Your task to perform on an android device: check battery use Image 0: 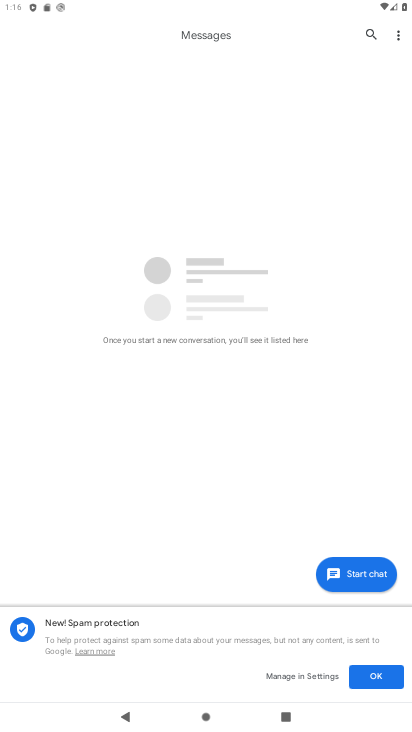
Step 0: press home button
Your task to perform on an android device: check battery use Image 1: 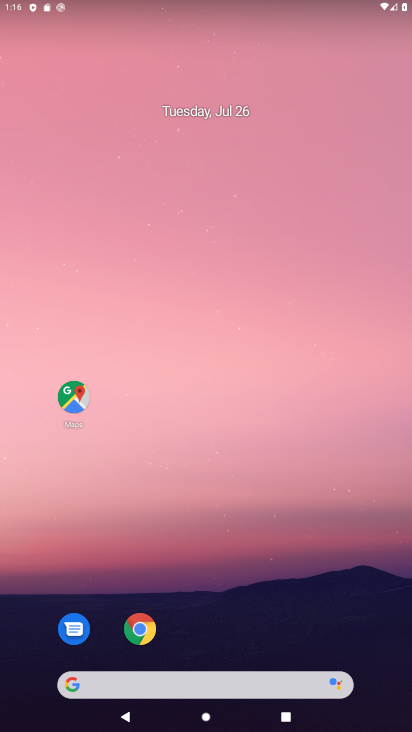
Step 1: drag from (214, 546) to (273, 61)
Your task to perform on an android device: check battery use Image 2: 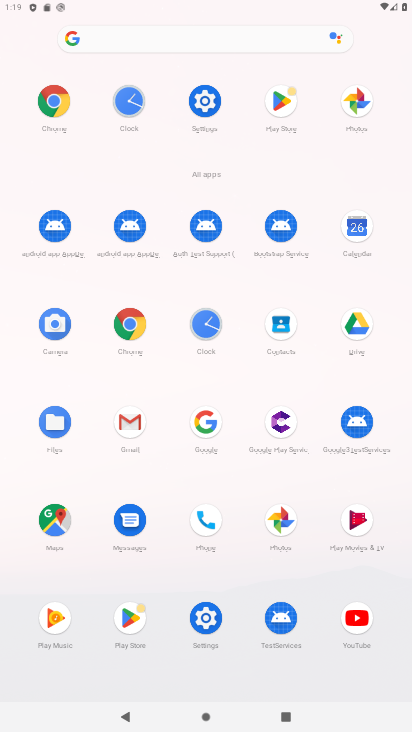
Step 2: click (201, 624)
Your task to perform on an android device: check battery use Image 3: 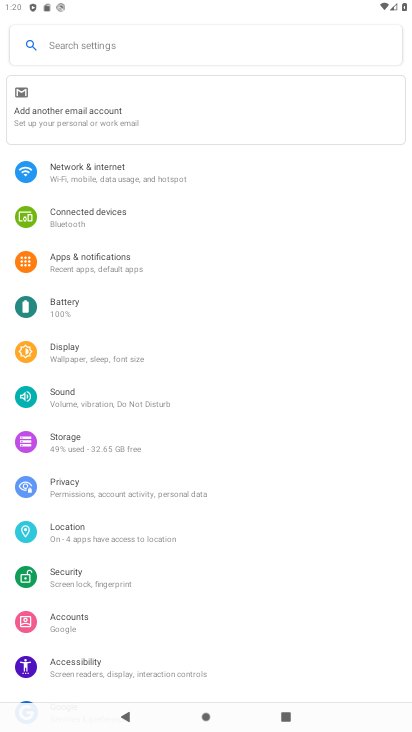
Step 3: click (98, 303)
Your task to perform on an android device: check battery use Image 4: 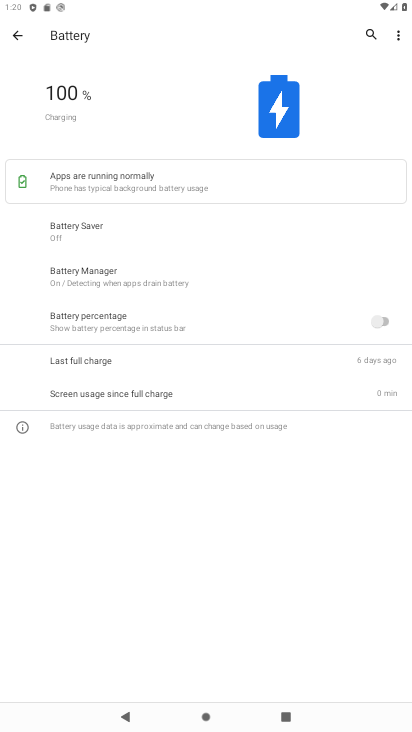
Step 4: task complete